Your task to perform on an android device: turn off notifications settings in the gmail app Image 0: 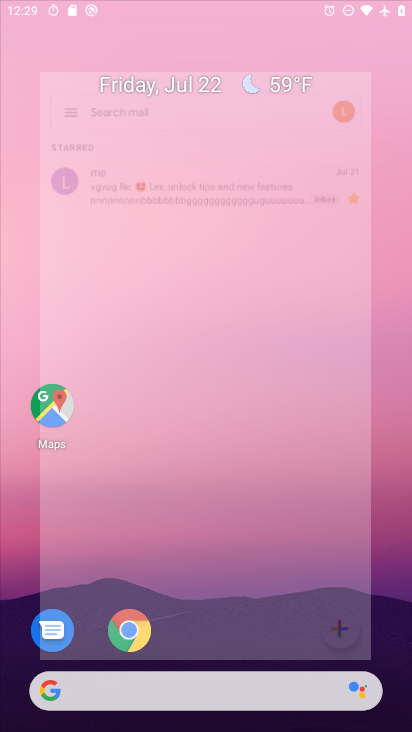
Step 0: press home button
Your task to perform on an android device: turn off notifications settings in the gmail app Image 1: 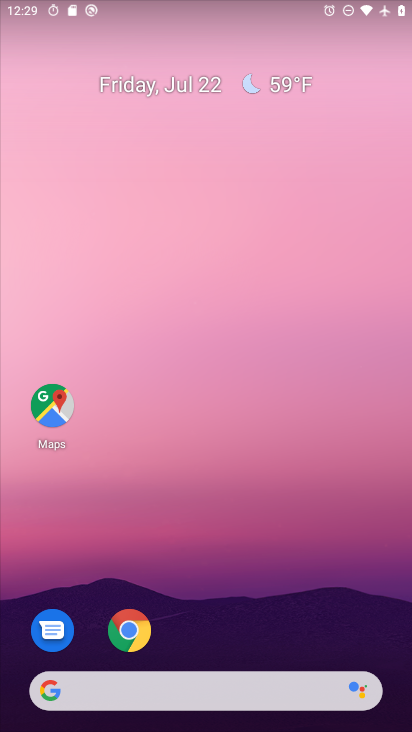
Step 1: drag from (242, 649) to (239, 327)
Your task to perform on an android device: turn off notifications settings in the gmail app Image 2: 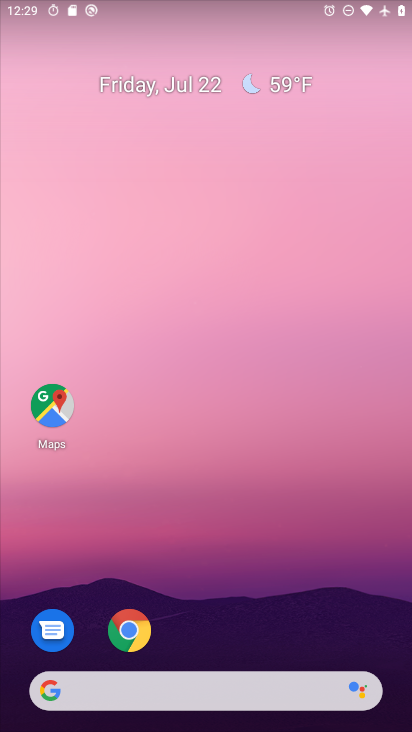
Step 2: drag from (250, 647) to (299, 244)
Your task to perform on an android device: turn off notifications settings in the gmail app Image 3: 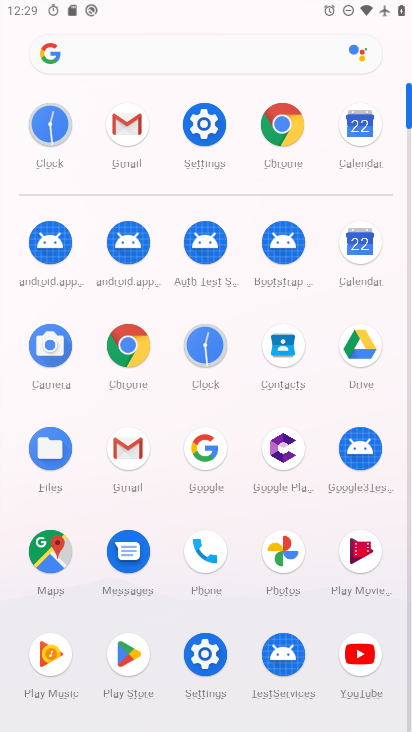
Step 3: click (131, 444)
Your task to perform on an android device: turn off notifications settings in the gmail app Image 4: 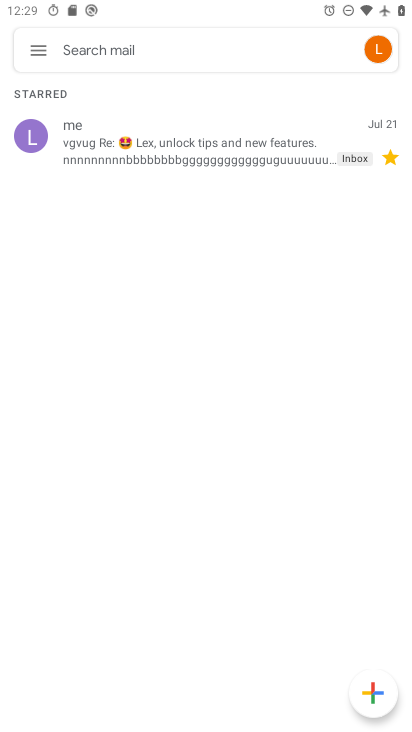
Step 4: click (25, 51)
Your task to perform on an android device: turn off notifications settings in the gmail app Image 5: 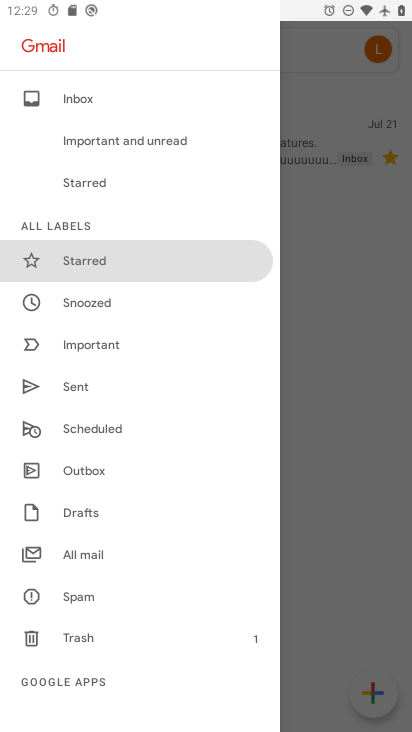
Step 5: drag from (165, 617) to (191, 233)
Your task to perform on an android device: turn off notifications settings in the gmail app Image 6: 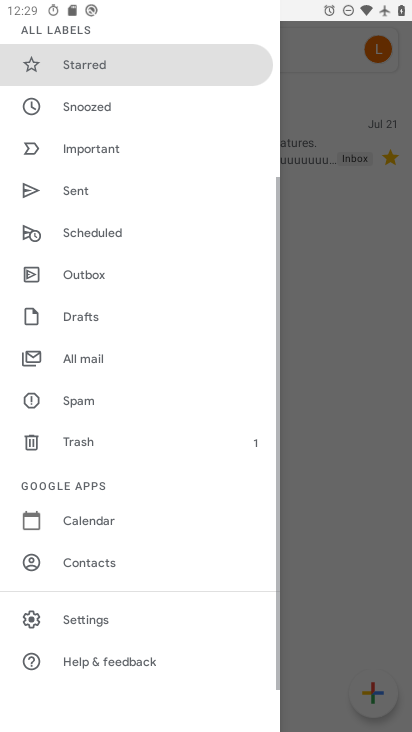
Step 6: click (91, 623)
Your task to perform on an android device: turn off notifications settings in the gmail app Image 7: 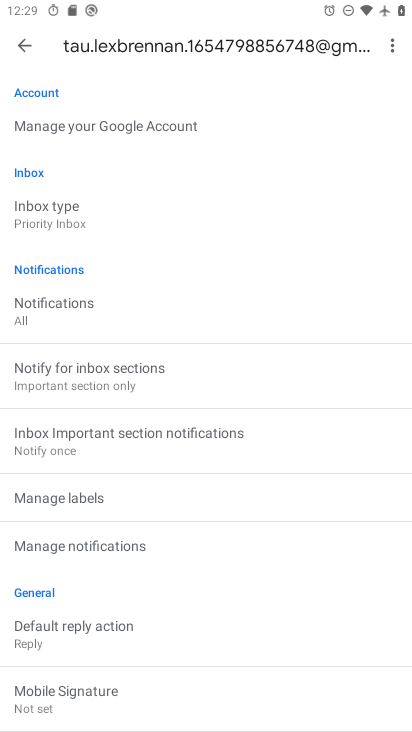
Step 7: click (61, 548)
Your task to perform on an android device: turn off notifications settings in the gmail app Image 8: 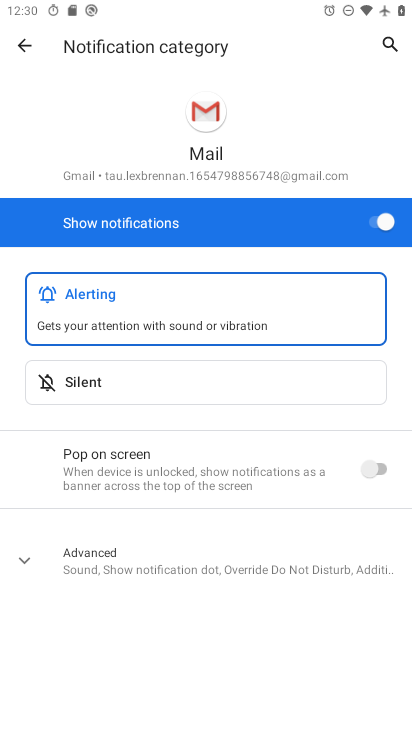
Step 8: click (382, 222)
Your task to perform on an android device: turn off notifications settings in the gmail app Image 9: 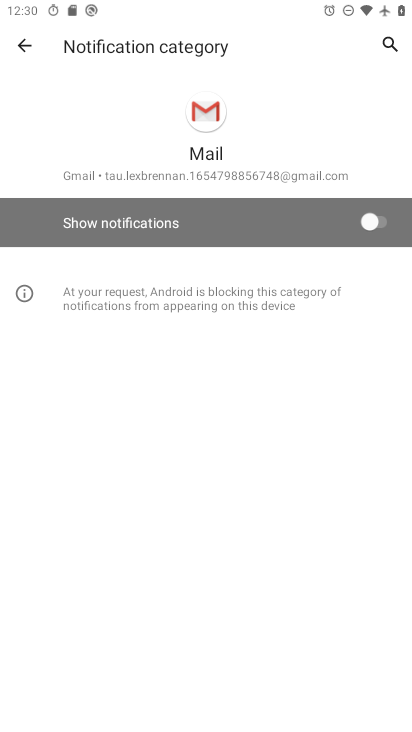
Step 9: task complete